Your task to perform on an android device: show emergency info Image 0: 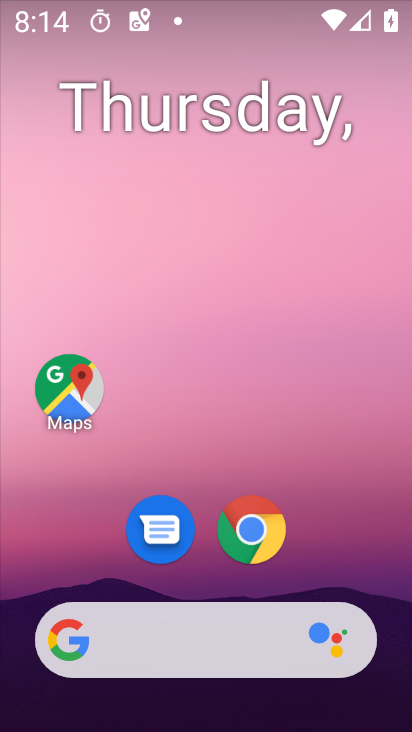
Step 0: drag from (397, 699) to (384, 78)
Your task to perform on an android device: show emergency info Image 1: 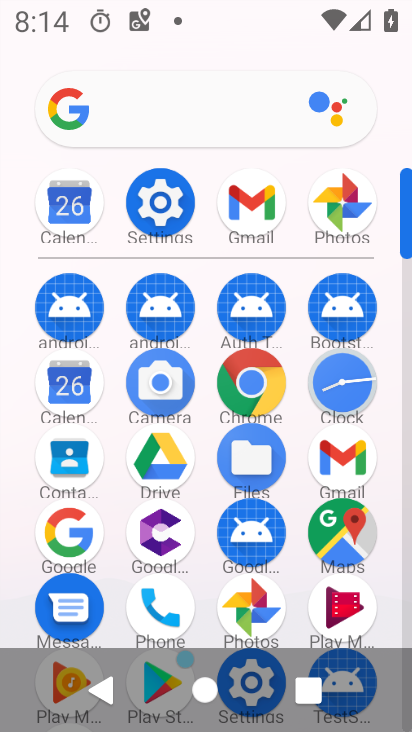
Step 1: click (176, 205)
Your task to perform on an android device: show emergency info Image 2: 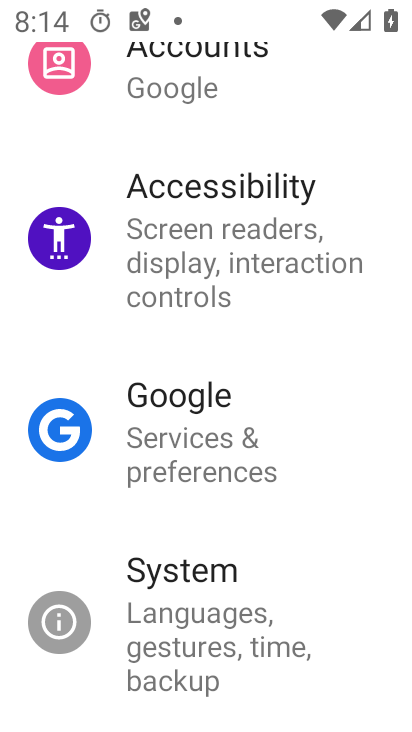
Step 2: drag from (325, 710) to (298, 220)
Your task to perform on an android device: show emergency info Image 3: 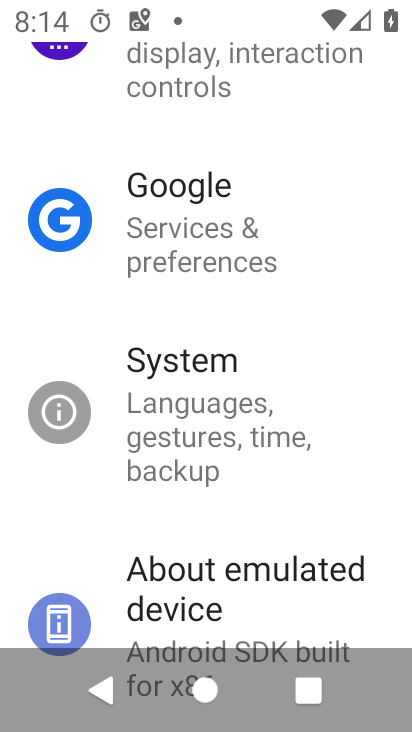
Step 3: click (204, 580)
Your task to perform on an android device: show emergency info Image 4: 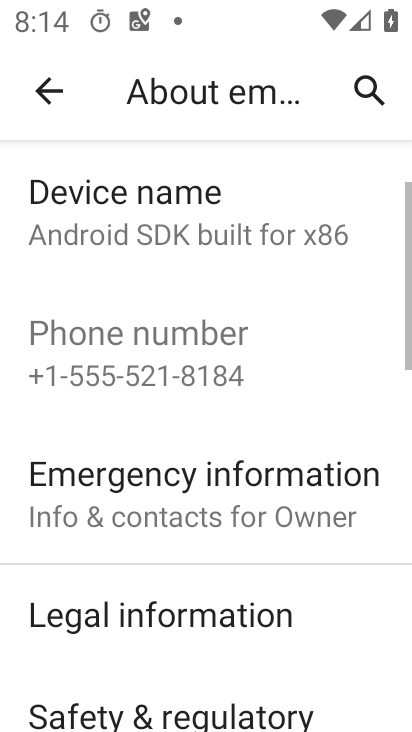
Step 4: click (110, 496)
Your task to perform on an android device: show emergency info Image 5: 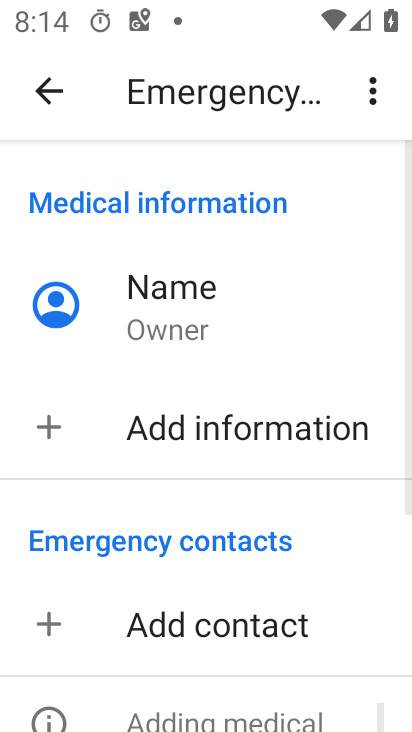
Step 5: task complete